Your task to perform on an android device: move a message to another label in the gmail app Image 0: 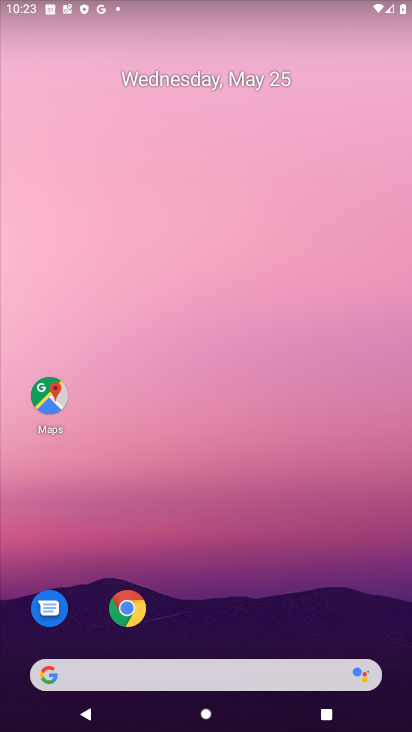
Step 0: drag from (286, 642) to (278, 0)
Your task to perform on an android device: move a message to another label in the gmail app Image 1: 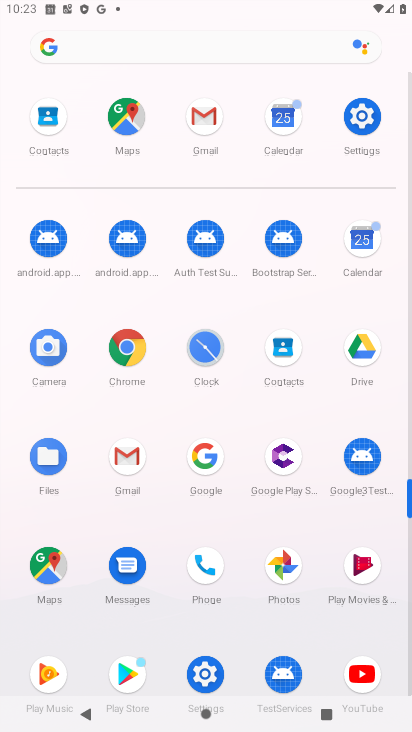
Step 1: click (209, 114)
Your task to perform on an android device: move a message to another label in the gmail app Image 2: 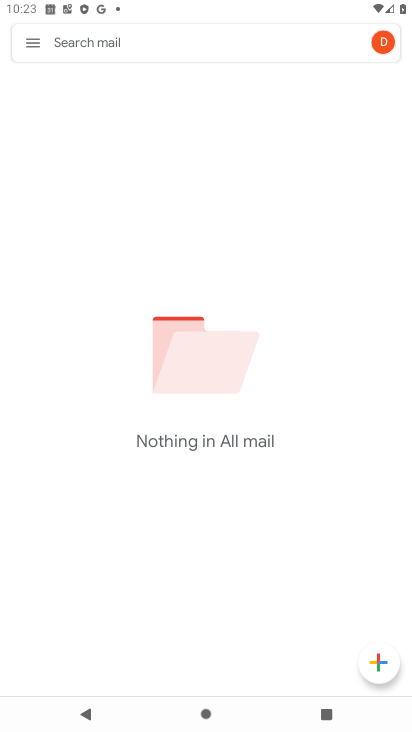
Step 2: task complete